Your task to perform on an android device: set the timer Image 0: 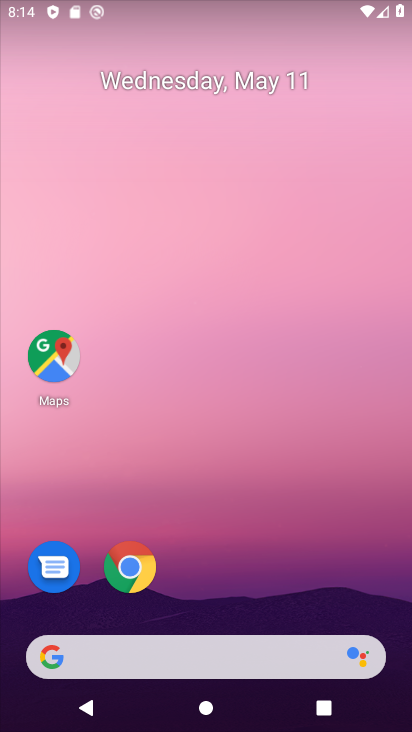
Step 0: drag from (195, 643) to (275, 93)
Your task to perform on an android device: set the timer Image 1: 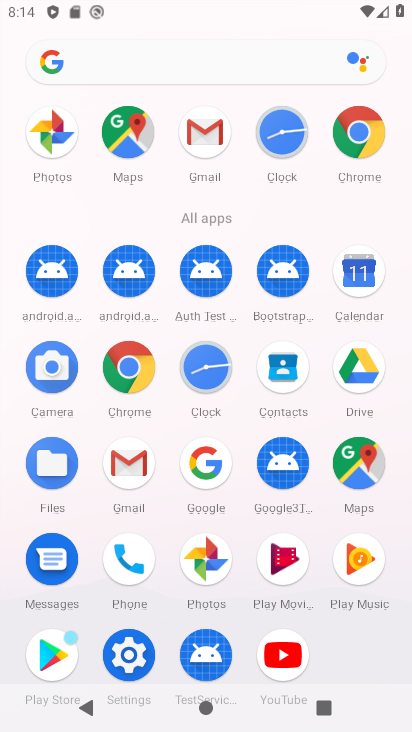
Step 1: click (213, 377)
Your task to perform on an android device: set the timer Image 2: 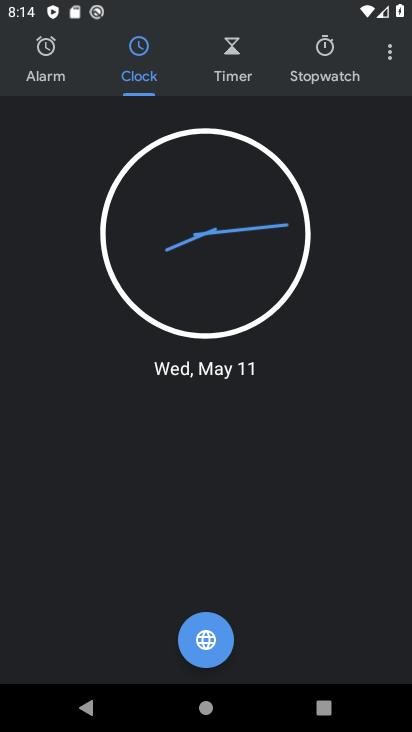
Step 2: click (225, 60)
Your task to perform on an android device: set the timer Image 3: 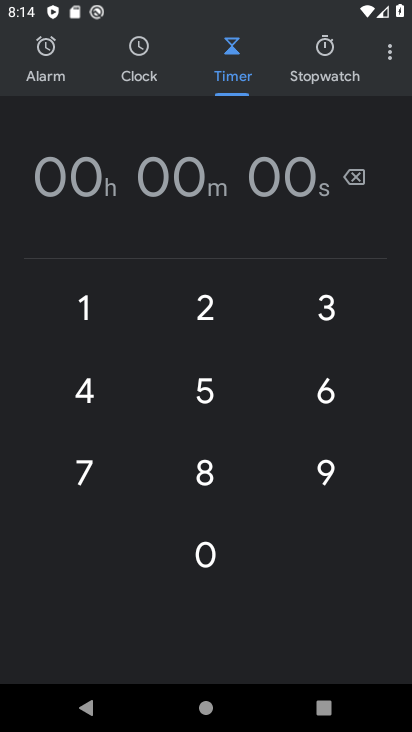
Step 3: click (219, 465)
Your task to perform on an android device: set the timer Image 4: 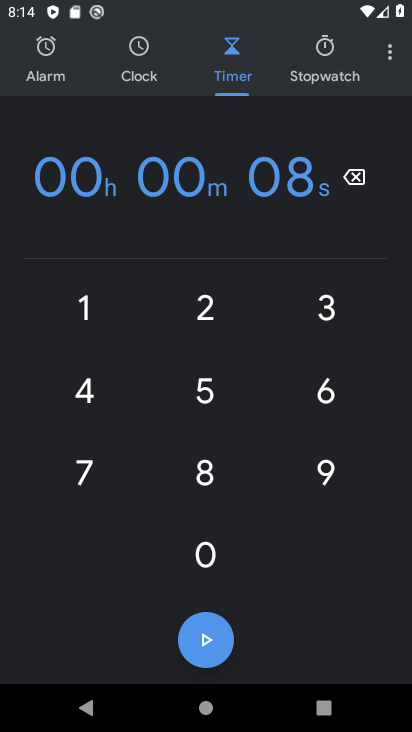
Step 4: click (326, 467)
Your task to perform on an android device: set the timer Image 5: 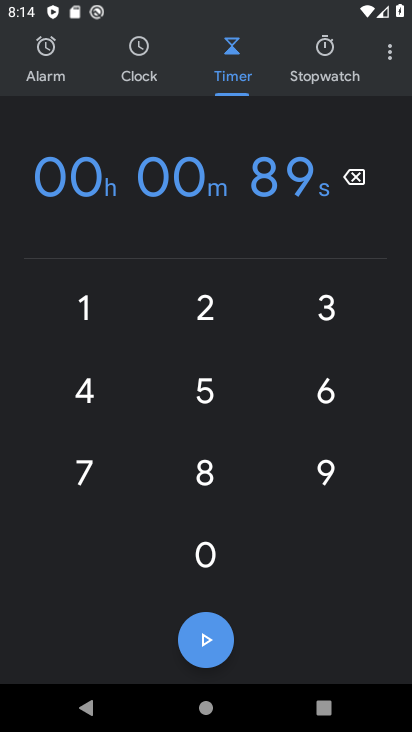
Step 5: click (222, 397)
Your task to perform on an android device: set the timer Image 6: 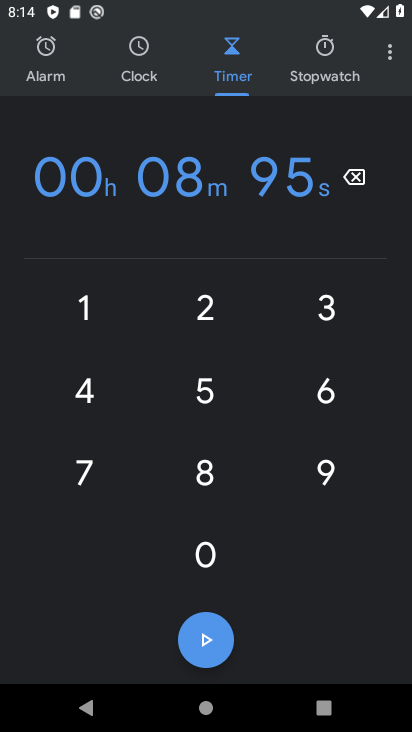
Step 6: click (330, 371)
Your task to perform on an android device: set the timer Image 7: 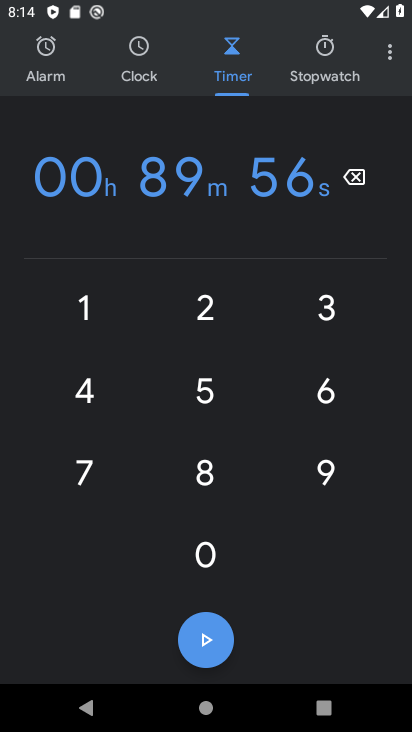
Step 7: click (198, 305)
Your task to perform on an android device: set the timer Image 8: 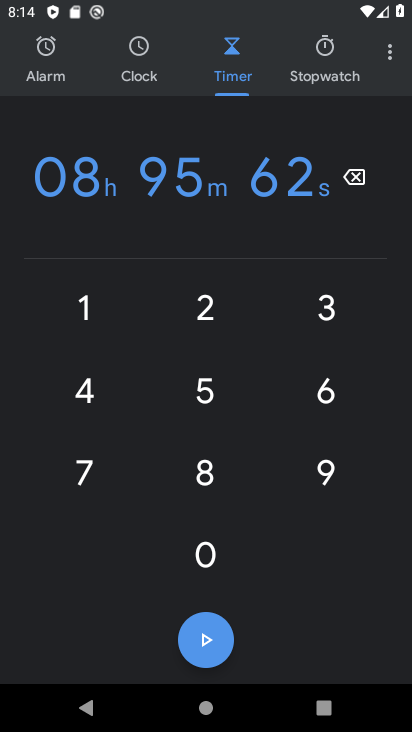
Step 8: click (339, 308)
Your task to perform on an android device: set the timer Image 9: 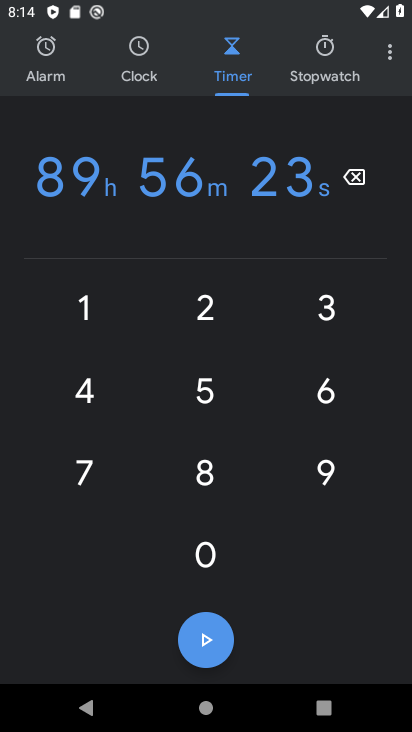
Step 9: task complete